Your task to perform on an android device: clear history in the chrome app Image 0: 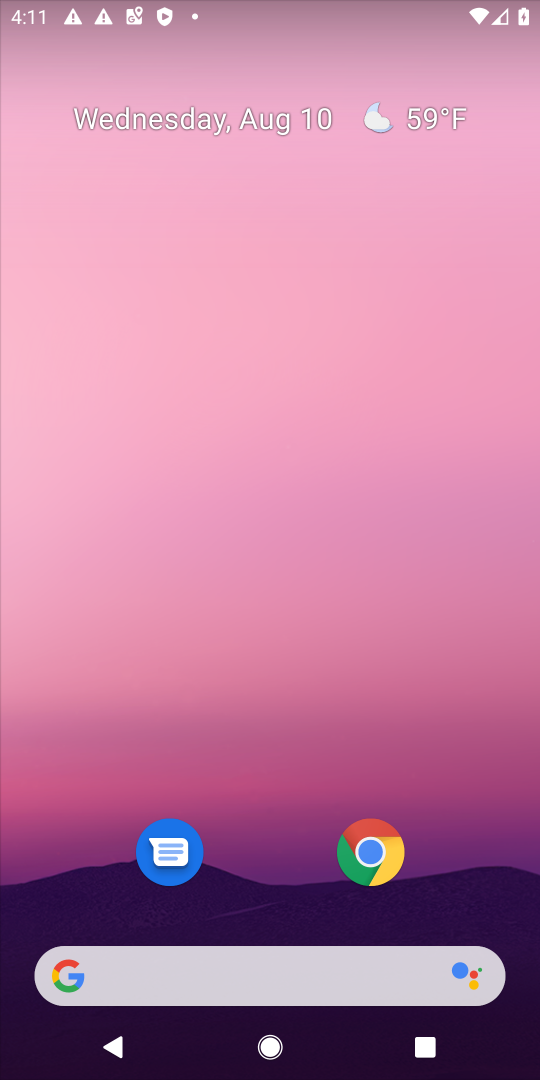
Step 0: drag from (249, 885) to (127, 126)
Your task to perform on an android device: clear history in the chrome app Image 1: 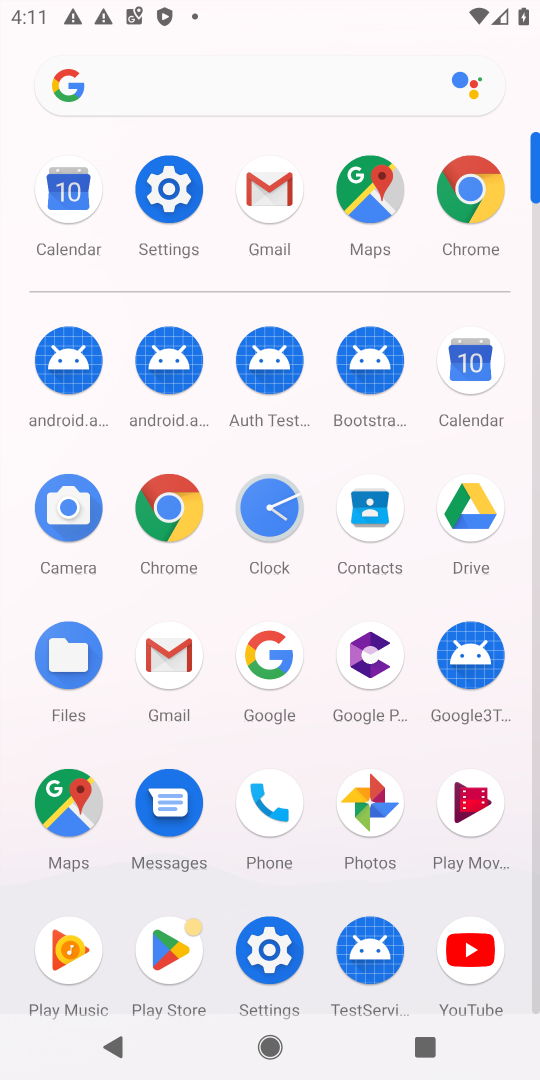
Step 1: click (174, 511)
Your task to perform on an android device: clear history in the chrome app Image 2: 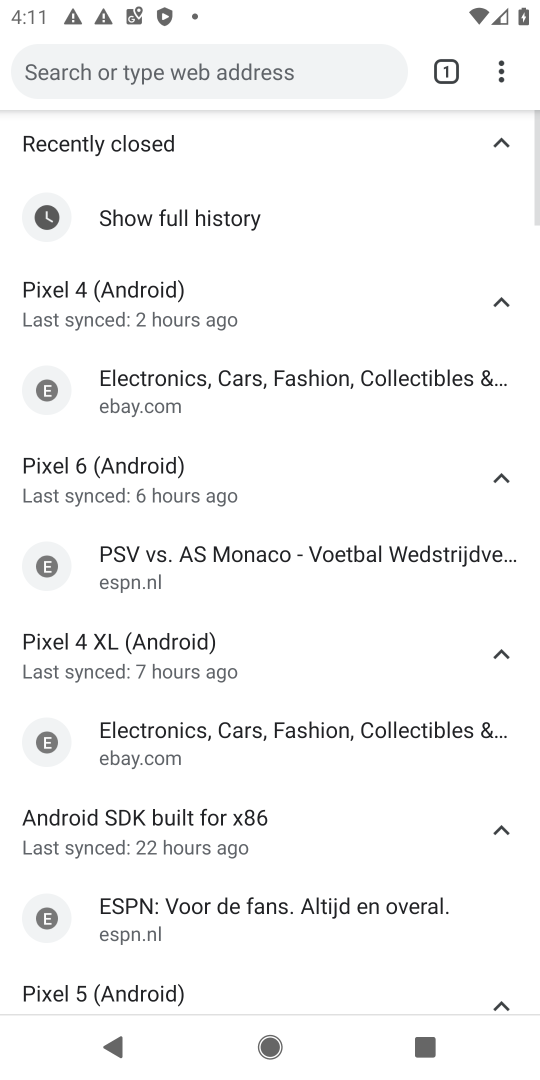
Step 2: task complete